Your task to perform on an android device: Show me popular games on the Play Store Image 0: 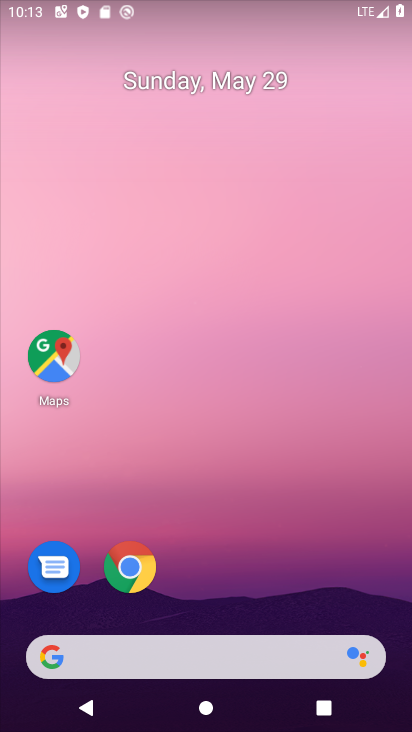
Step 0: drag from (395, 614) to (300, 55)
Your task to perform on an android device: Show me popular games on the Play Store Image 1: 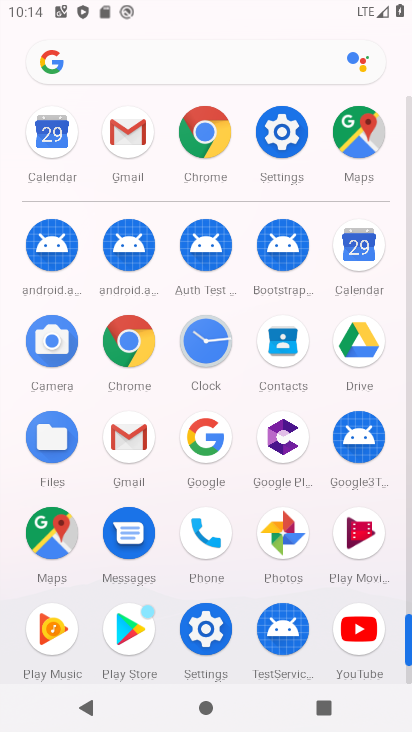
Step 1: click (140, 631)
Your task to perform on an android device: Show me popular games on the Play Store Image 2: 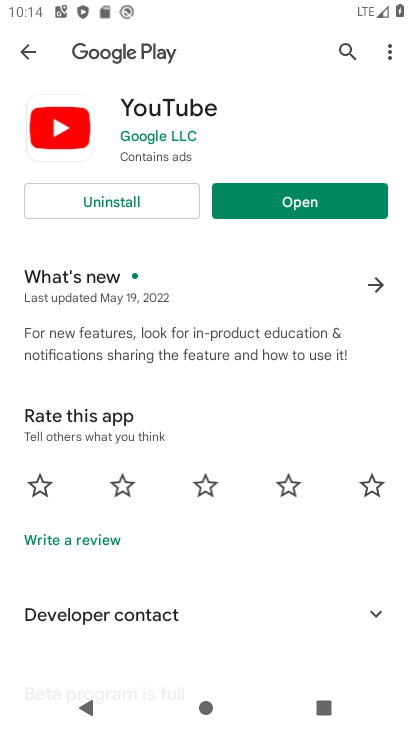
Step 2: press back button
Your task to perform on an android device: Show me popular games on the Play Store Image 3: 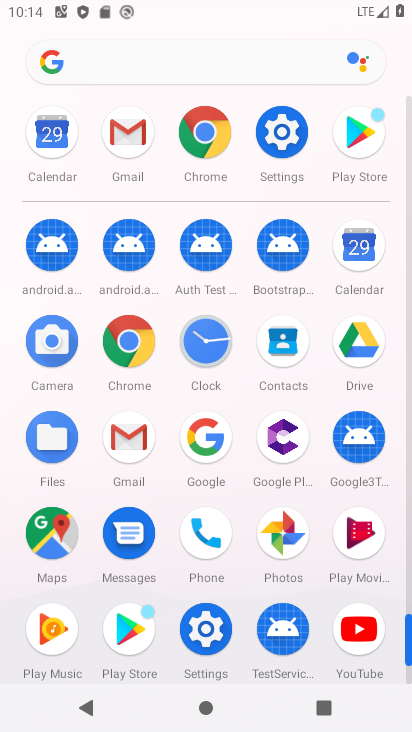
Step 3: click (136, 625)
Your task to perform on an android device: Show me popular games on the Play Store Image 4: 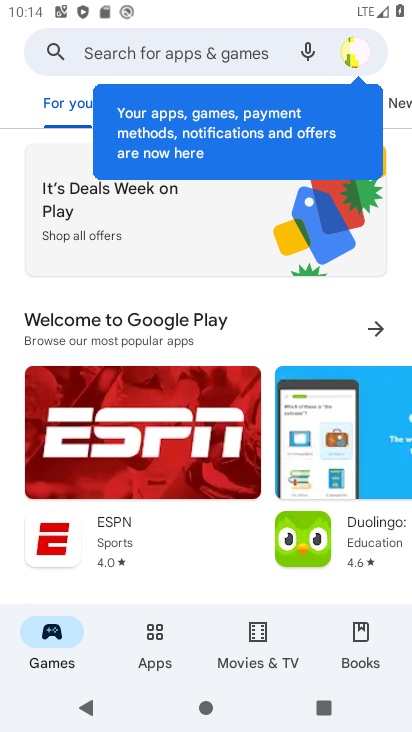
Step 4: drag from (220, 569) to (159, 180)
Your task to perform on an android device: Show me popular games on the Play Store Image 5: 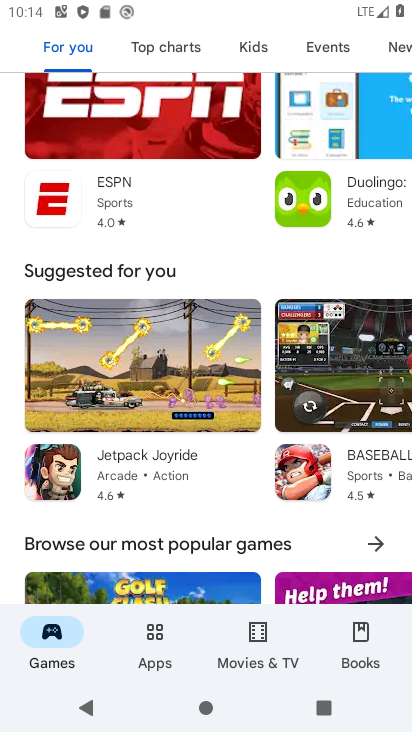
Step 5: drag from (241, 550) to (212, 277)
Your task to perform on an android device: Show me popular games on the Play Store Image 6: 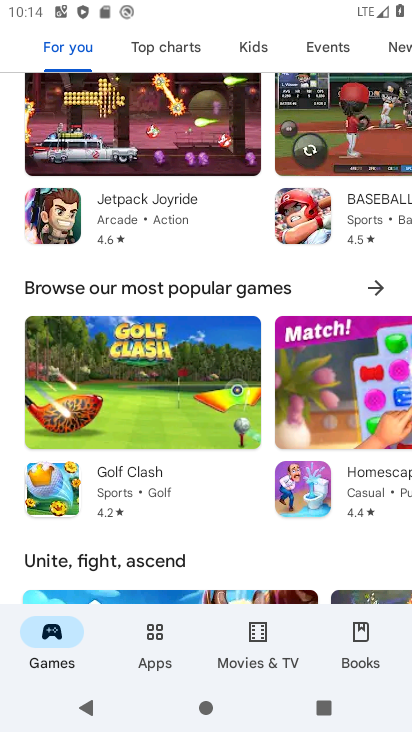
Step 6: click (379, 283)
Your task to perform on an android device: Show me popular games on the Play Store Image 7: 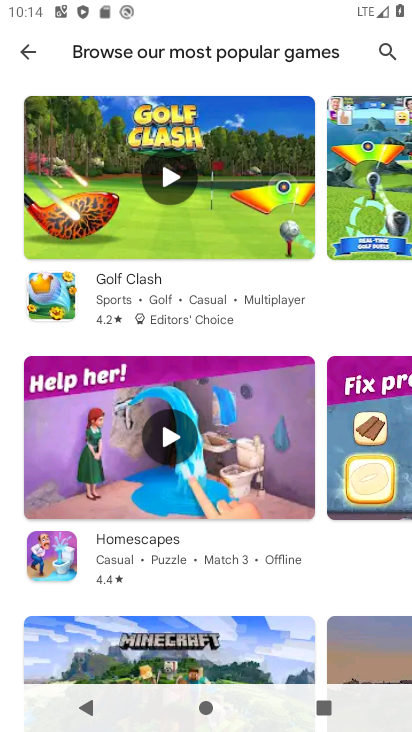
Step 7: task complete